Your task to perform on an android device: Turn on the flashlight Image 0: 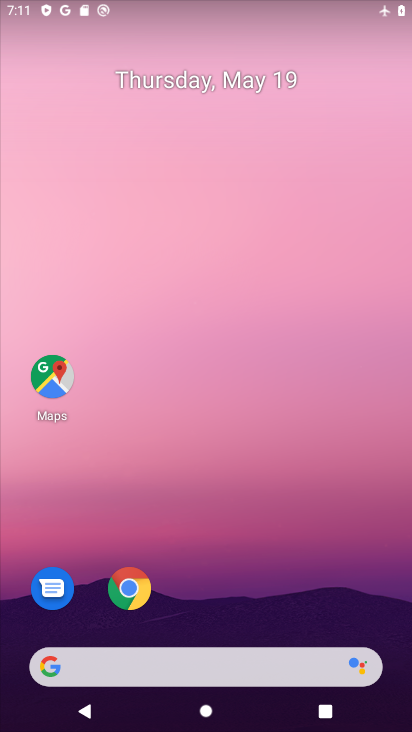
Step 0: drag from (388, 6) to (359, 522)
Your task to perform on an android device: Turn on the flashlight Image 1: 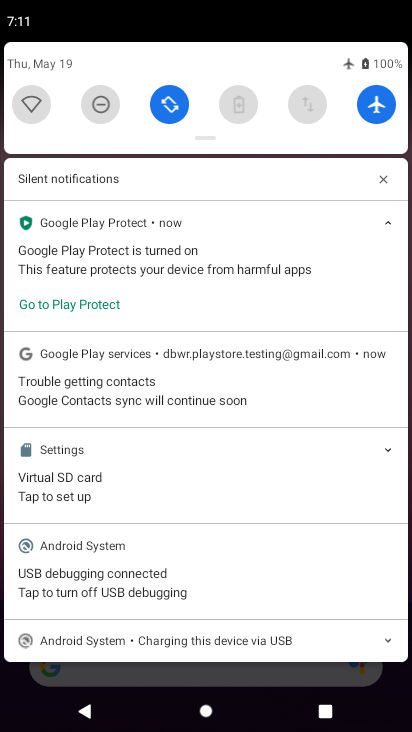
Step 1: drag from (278, 139) to (291, 535)
Your task to perform on an android device: Turn on the flashlight Image 2: 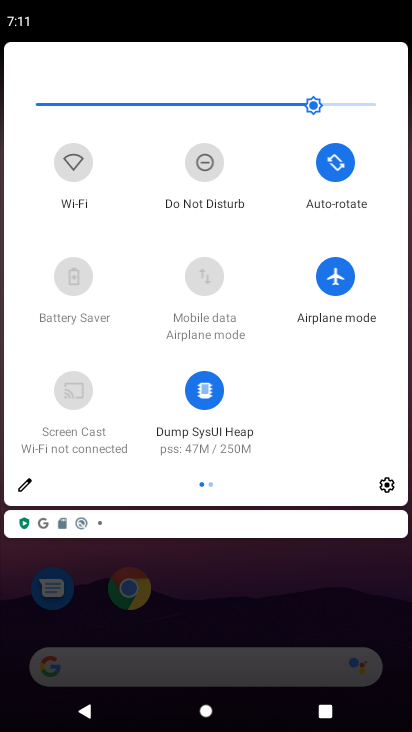
Step 2: click (31, 481)
Your task to perform on an android device: Turn on the flashlight Image 3: 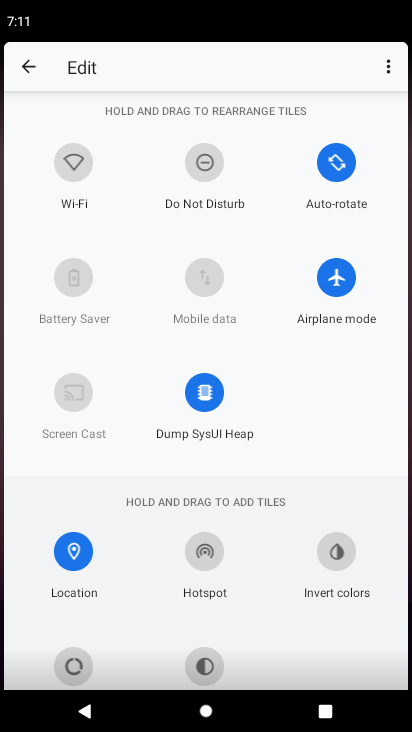
Step 3: task complete